Your task to perform on an android device: toggle javascript in the chrome app Image 0: 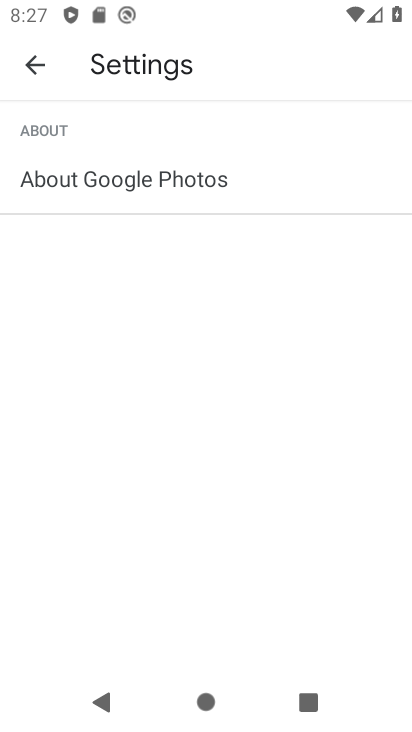
Step 0: press home button
Your task to perform on an android device: toggle javascript in the chrome app Image 1: 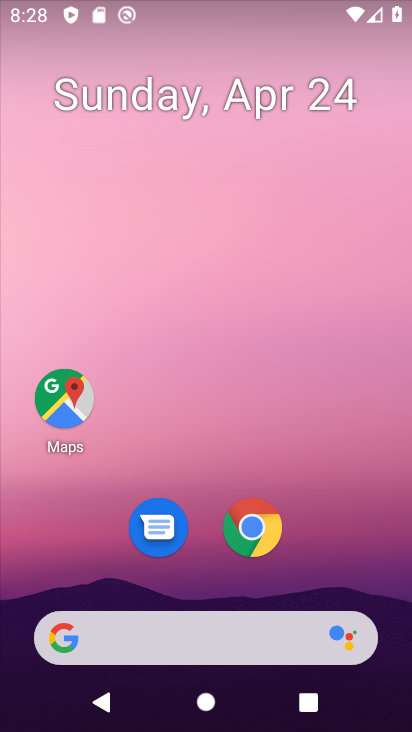
Step 1: click (252, 514)
Your task to perform on an android device: toggle javascript in the chrome app Image 2: 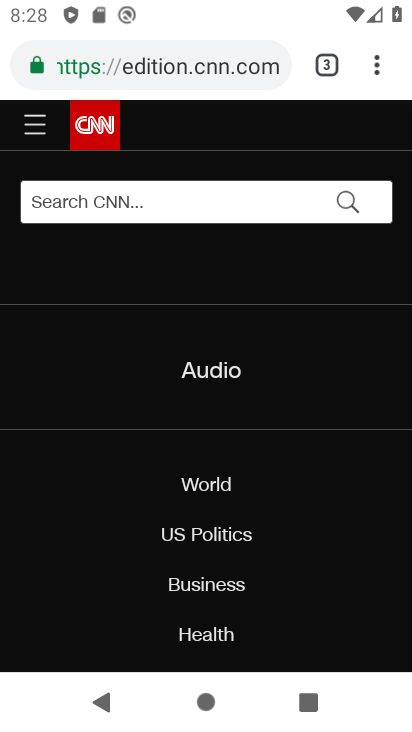
Step 2: click (380, 65)
Your task to perform on an android device: toggle javascript in the chrome app Image 3: 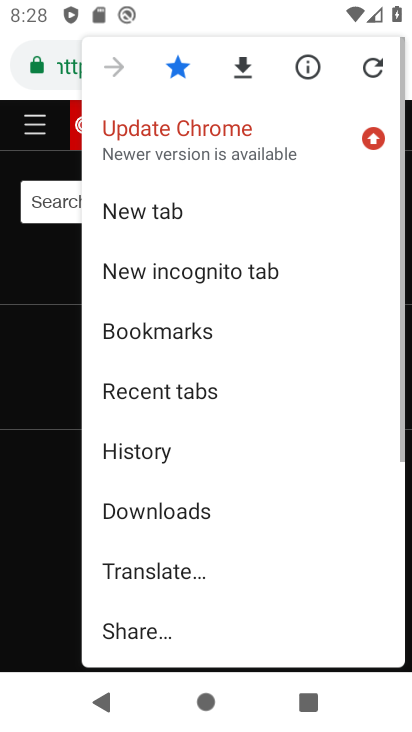
Step 3: drag from (241, 581) to (244, 224)
Your task to perform on an android device: toggle javascript in the chrome app Image 4: 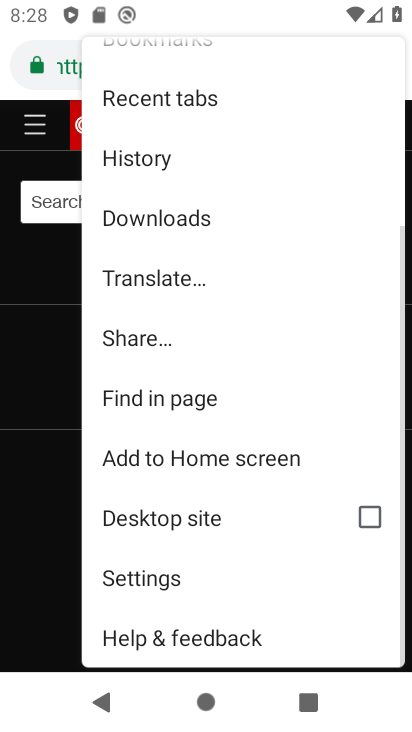
Step 4: click (168, 575)
Your task to perform on an android device: toggle javascript in the chrome app Image 5: 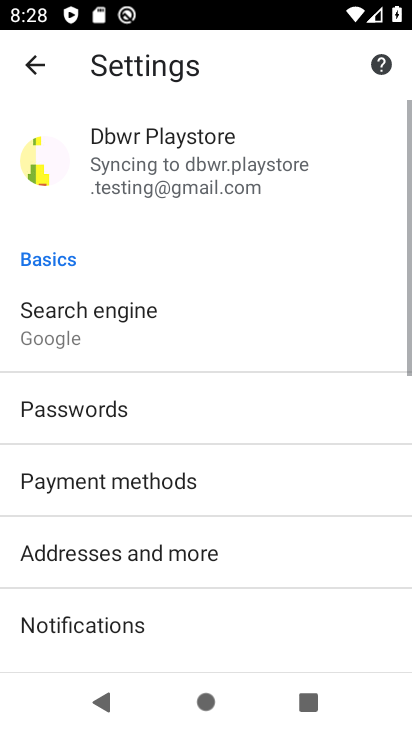
Step 5: drag from (170, 575) to (163, 216)
Your task to perform on an android device: toggle javascript in the chrome app Image 6: 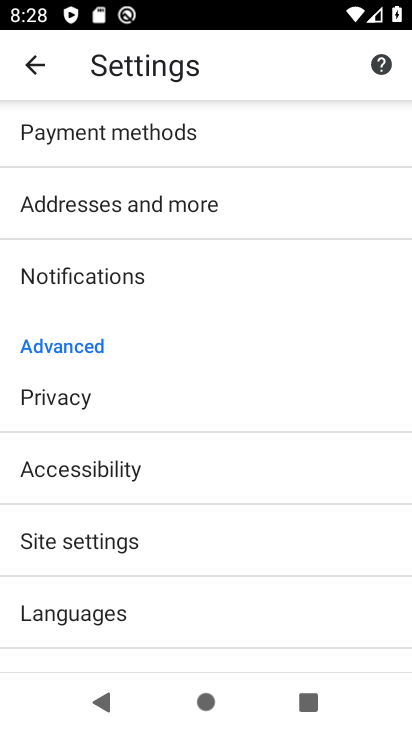
Step 6: click (122, 552)
Your task to perform on an android device: toggle javascript in the chrome app Image 7: 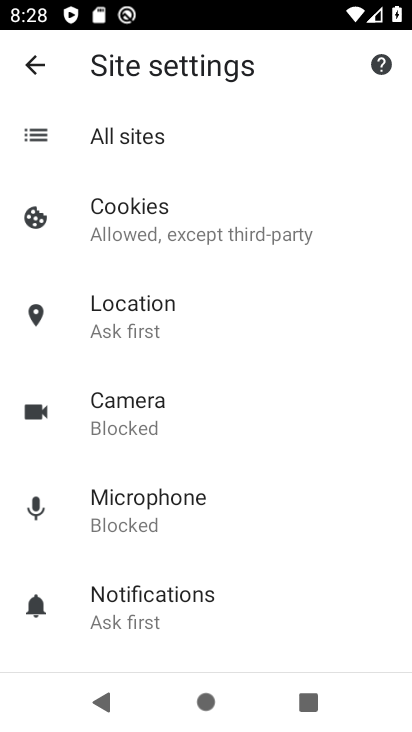
Step 7: drag from (250, 584) to (289, 329)
Your task to perform on an android device: toggle javascript in the chrome app Image 8: 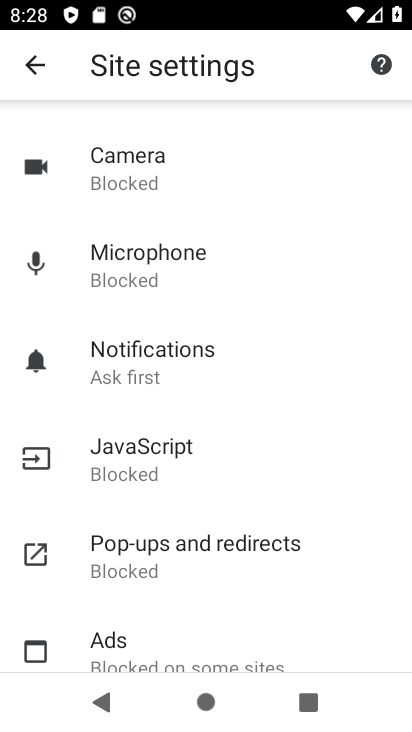
Step 8: click (180, 463)
Your task to perform on an android device: toggle javascript in the chrome app Image 9: 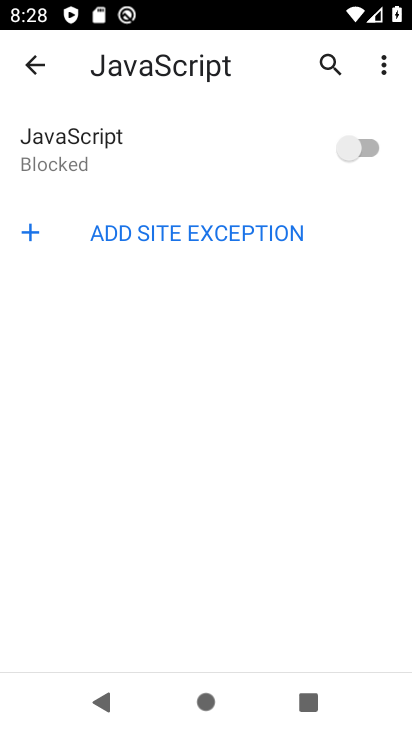
Step 9: click (374, 151)
Your task to perform on an android device: toggle javascript in the chrome app Image 10: 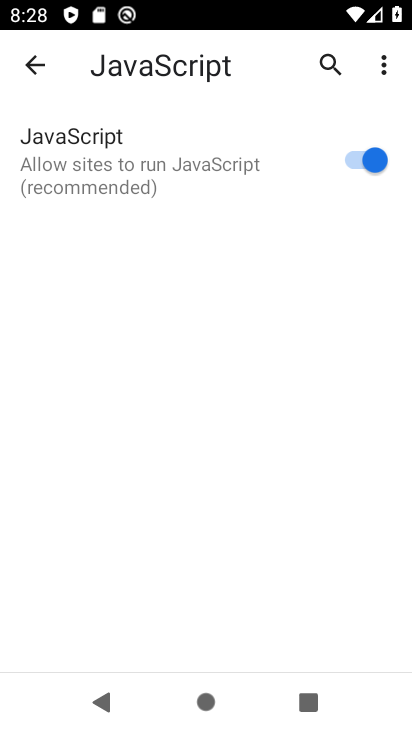
Step 10: task complete